Your task to perform on an android device: Open Yahoo.com Image 0: 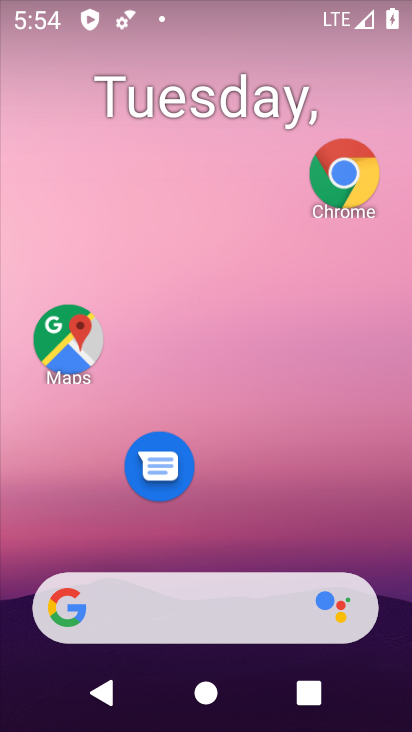
Step 0: click (319, 189)
Your task to perform on an android device: Open Yahoo.com Image 1: 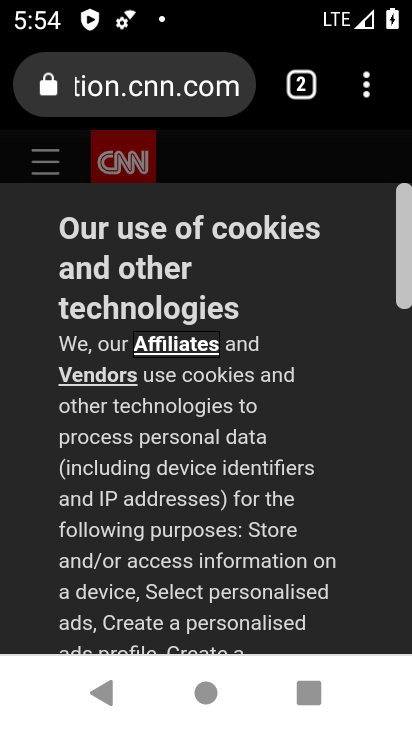
Step 1: click (227, 84)
Your task to perform on an android device: Open Yahoo.com Image 2: 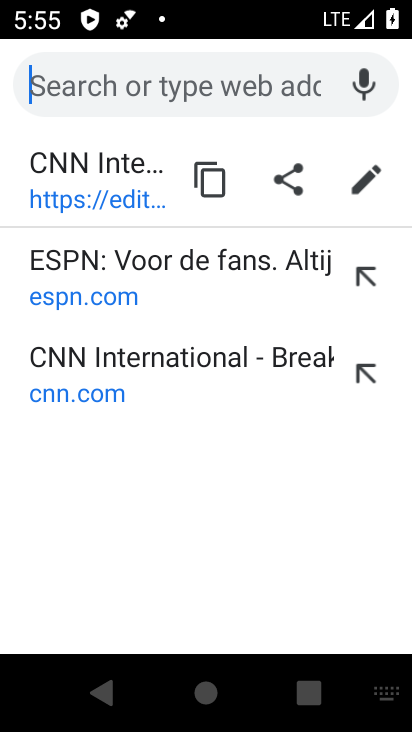
Step 2: type "Yahoo.com"
Your task to perform on an android device: Open Yahoo.com Image 3: 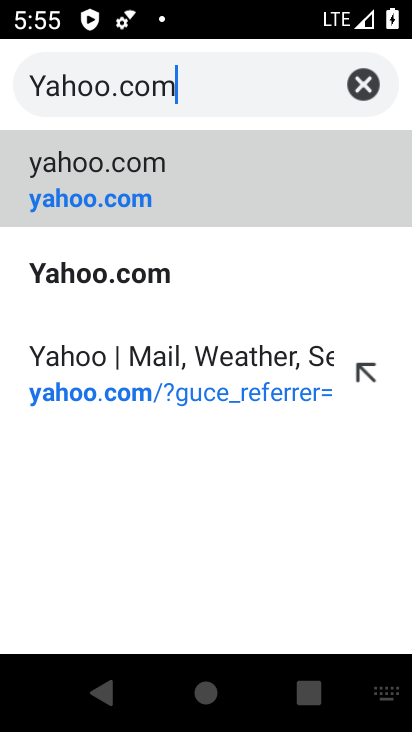
Step 3: click (156, 178)
Your task to perform on an android device: Open Yahoo.com Image 4: 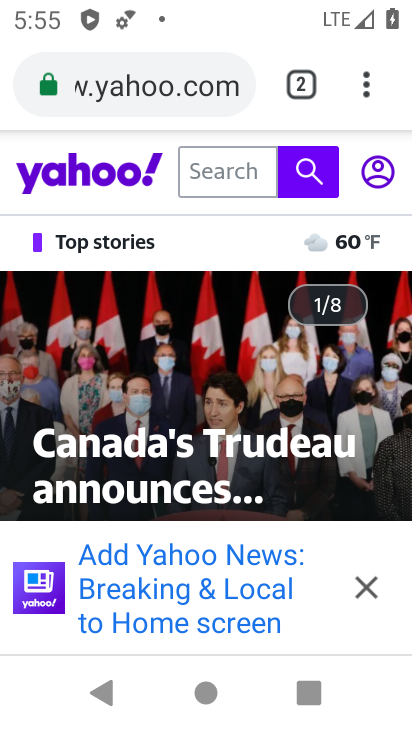
Step 4: task complete